Your task to perform on an android device: allow cookies in the chrome app Image 0: 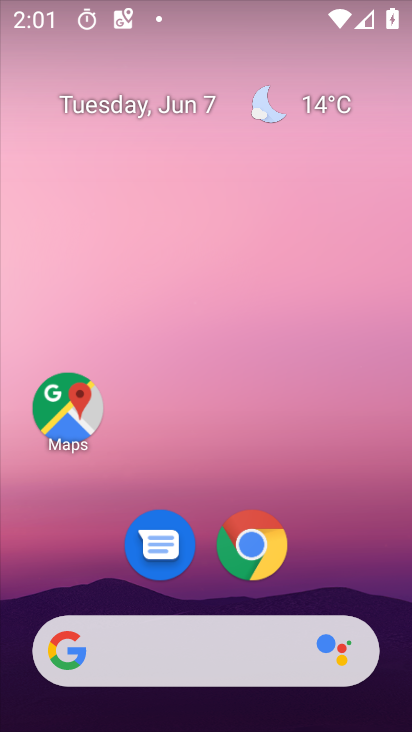
Step 0: click (261, 538)
Your task to perform on an android device: allow cookies in the chrome app Image 1: 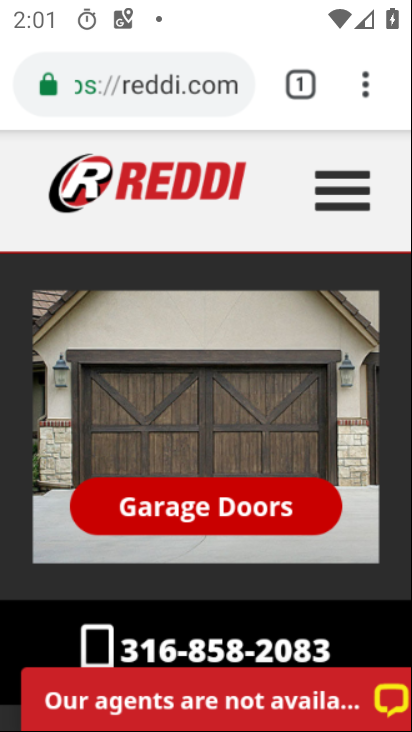
Step 1: click (361, 84)
Your task to perform on an android device: allow cookies in the chrome app Image 2: 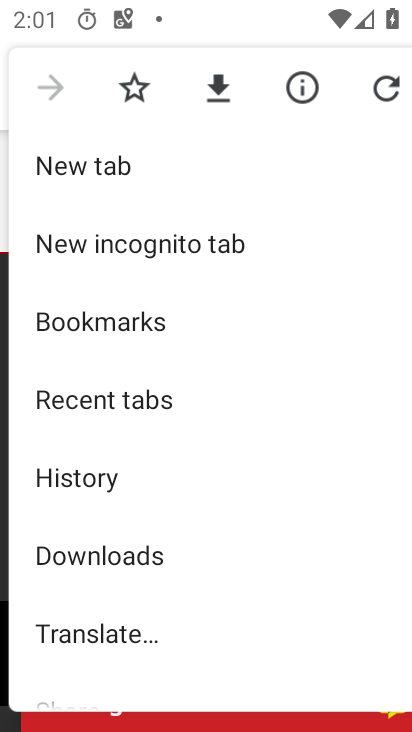
Step 2: drag from (210, 593) to (257, 51)
Your task to perform on an android device: allow cookies in the chrome app Image 3: 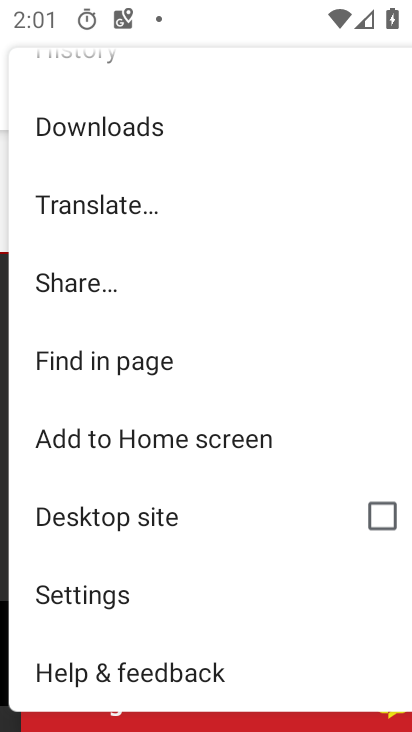
Step 3: click (156, 591)
Your task to perform on an android device: allow cookies in the chrome app Image 4: 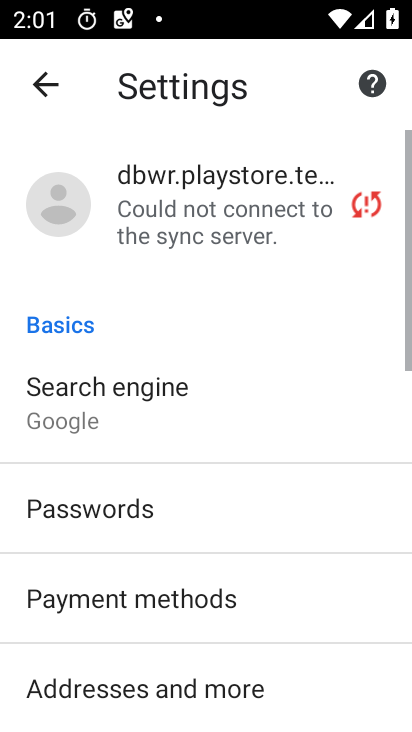
Step 4: drag from (226, 556) to (326, 109)
Your task to perform on an android device: allow cookies in the chrome app Image 5: 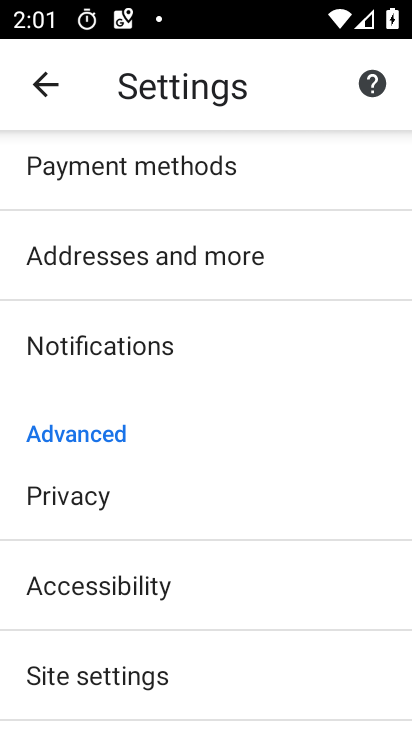
Step 5: click (164, 666)
Your task to perform on an android device: allow cookies in the chrome app Image 6: 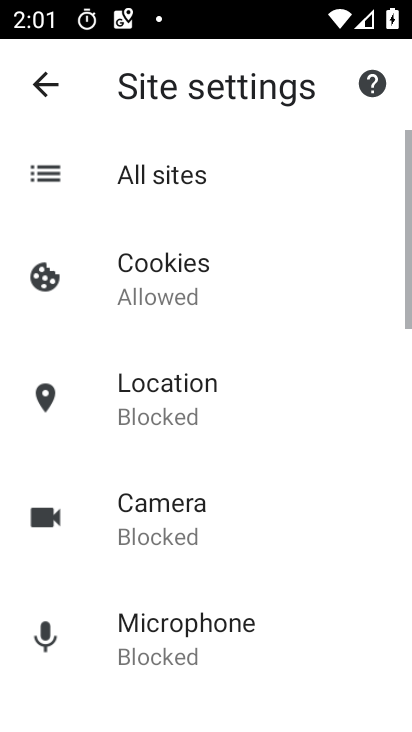
Step 6: click (216, 267)
Your task to perform on an android device: allow cookies in the chrome app Image 7: 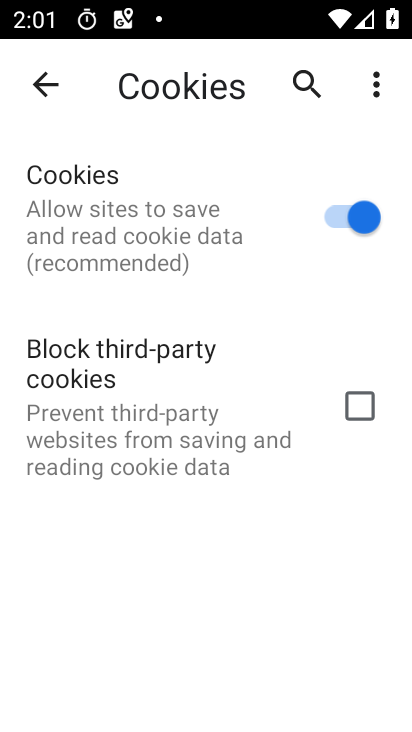
Step 7: task complete